Your task to perform on an android device: see creations saved in the google photos Image 0: 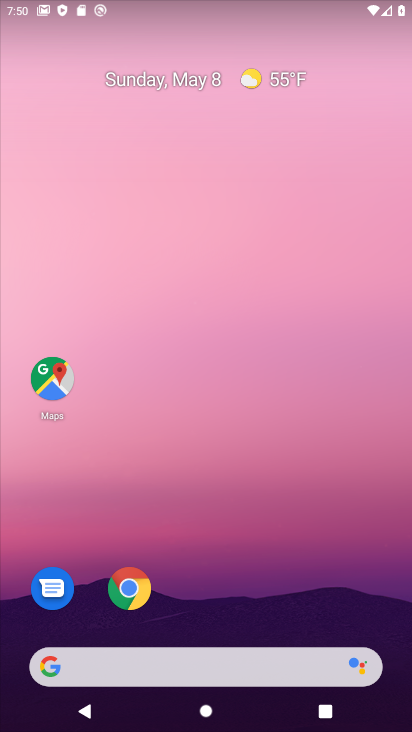
Step 0: drag from (321, 614) to (264, 32)
Your task to perform on an android device: see creations saved in the google photos Image 1: 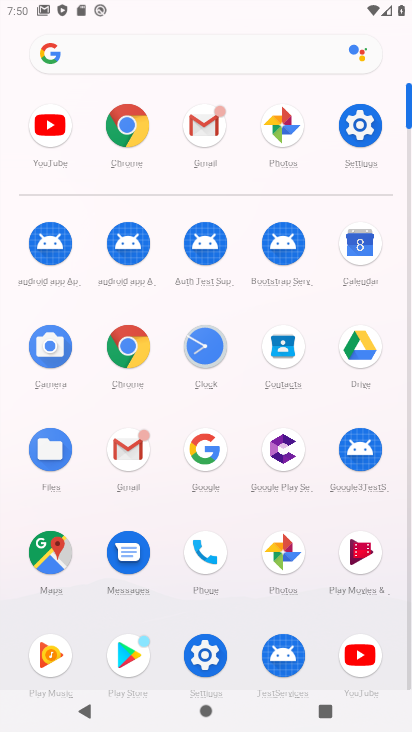
Step 1: click (283, 559)
Your task to perform on an android device: see creations saved in the google photos Image 2: 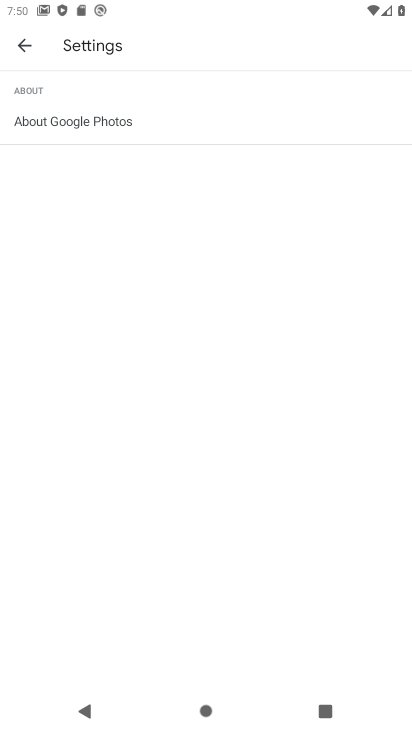
Step 2: press back button
Your task to perform on an android device: see creations saved in the google photos Image 3: 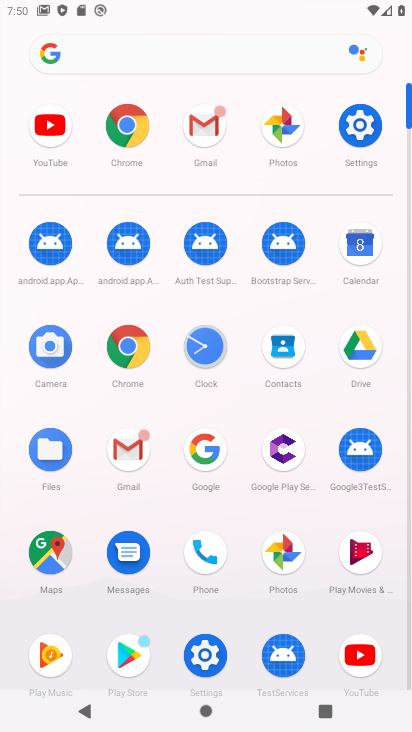
Step 3: click (287, 551)
Your task to perform on an android device: see creations saved in the google photos Image 4: 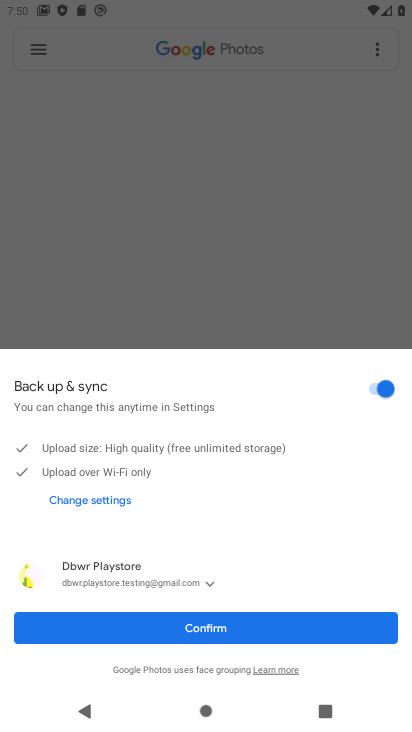
Step 4: click (231, 634)
Your task to perform on an android device: see creations saved in the google photos Image 5: 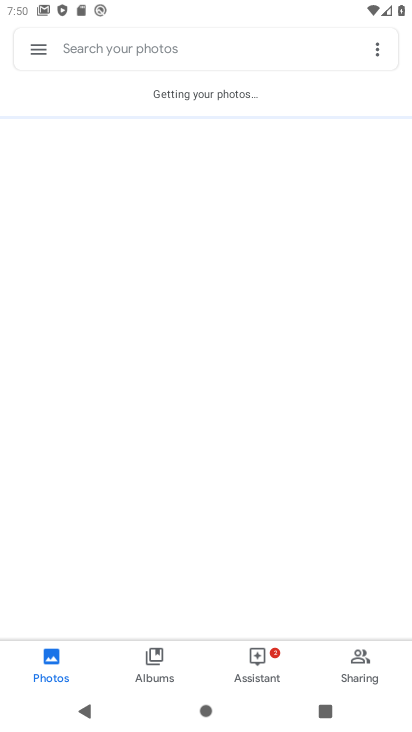
Step 5: click (153, 53)
Your task to perform on an android device: see creations saved in the google photos Image 6: 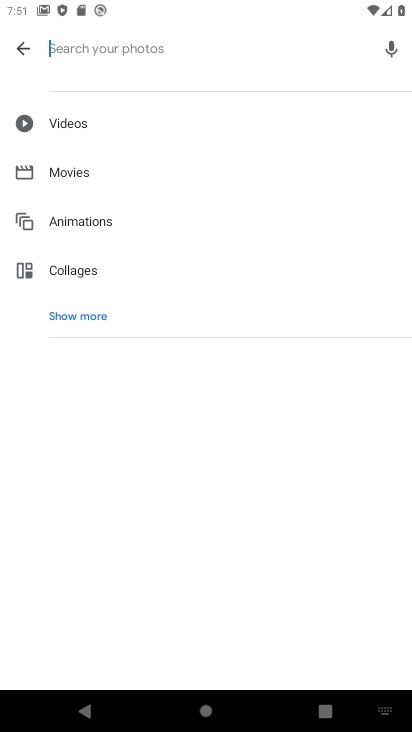
Step 6: click (81, 316)
Your task to perform on an android device: see creations saved in the google photos Image 7: 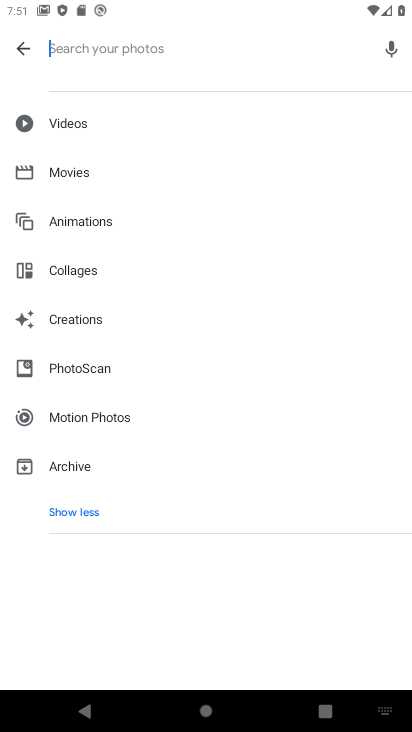
Step 7: click (81, 316)
Your task to perform on an android device: see creations saved in the google photos Image 8: 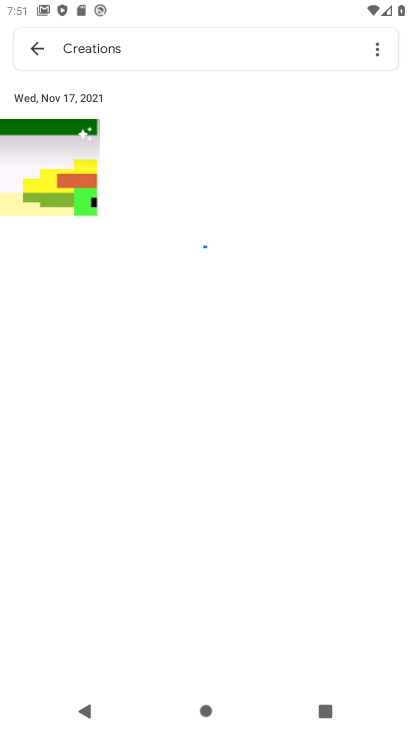
Step 8: task complete